Your task to perform on an android device: open device folders in google photos Image 0: 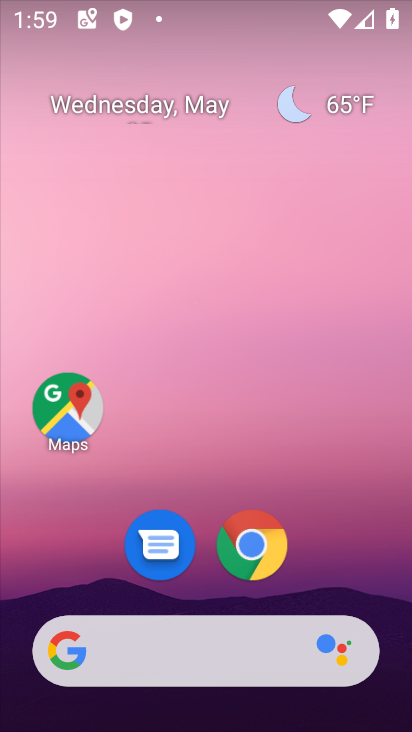
Step 0: drag from (327, 450) to (198, 30)
Your task to perform on an android device: open device folders in google photos Image 1: 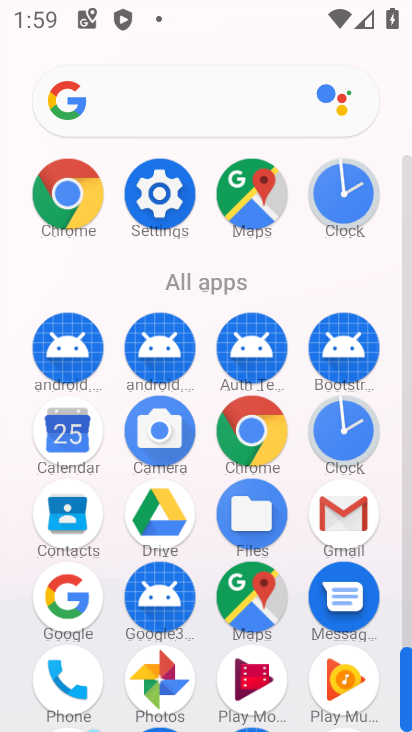
Step 1: click (163, 677)
Your task to perform on an android device: open device folders in google photos Image 2: 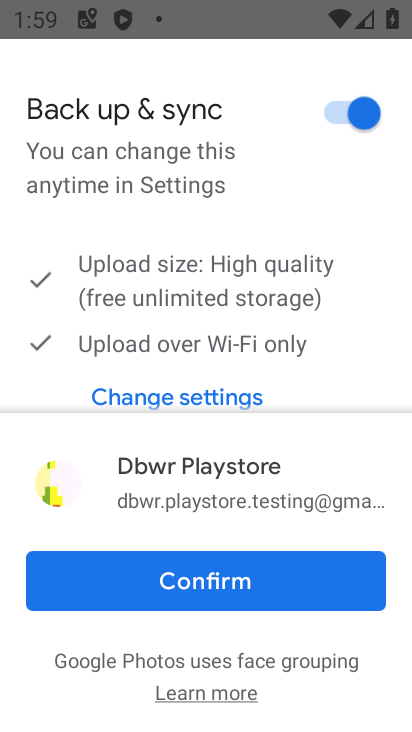
Step 2: click (231, 588)
Your task to perform on an android device: open device folders in google photos Image 3: 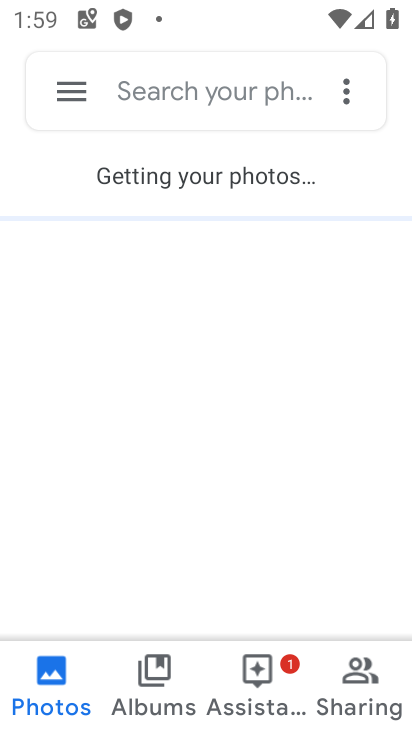
Step 3: click (63, 112)
Your task to perform on an android device: open device folders in google photos Image 4: 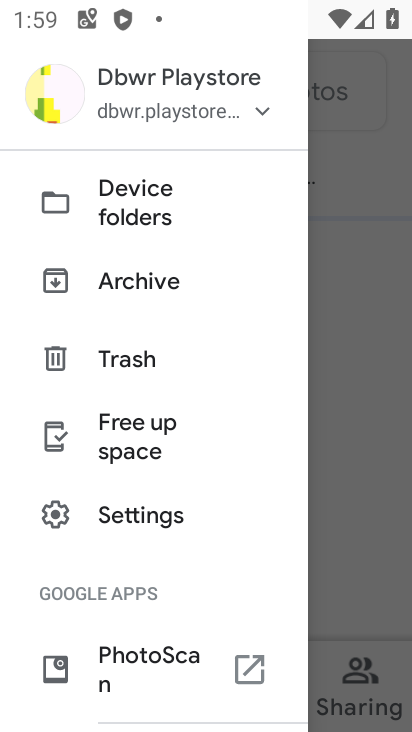
Step 4: click (145, 214)
Your task to perform on an android device: open device folders in google photos Image 5: 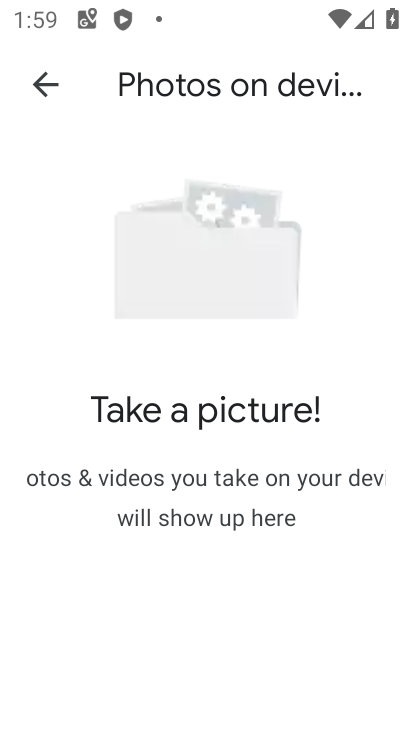
Step 5: task complete